Your task to perform on an android device: turn off data saver in the chrome app Image 0: 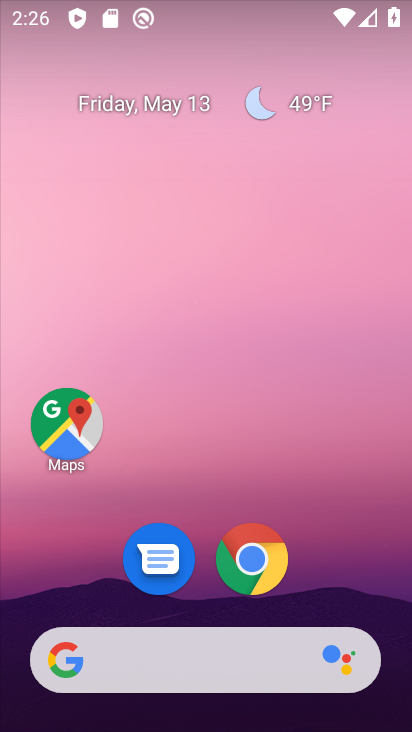
Step 0: click (255, 554)
Your task to perform on an android device: turn off data saver in the chrome app Image 1: 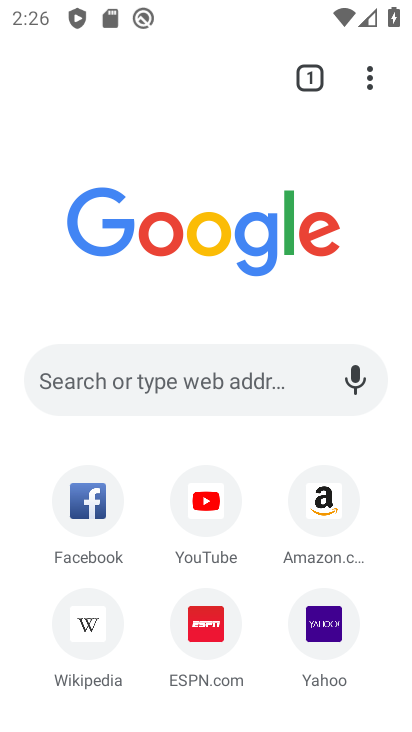
Step 1: click (366, 83)
Your task to perform on an android device: turn off data saver in the chrome app Image 2: 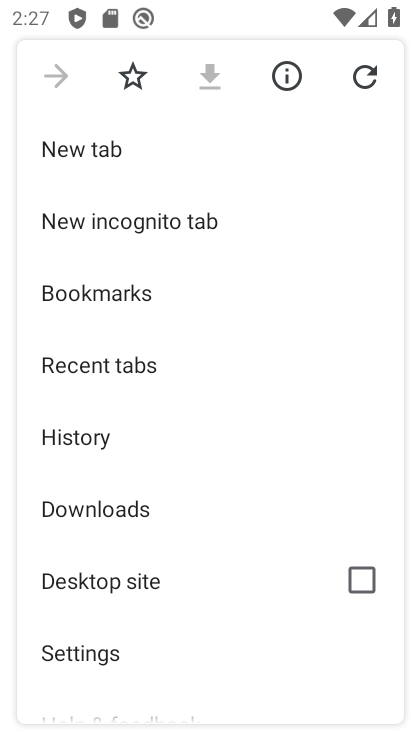
Step 2: click (69, 649)
Your task to perform on an android device: turn off data saver in the chrome app Image 3: 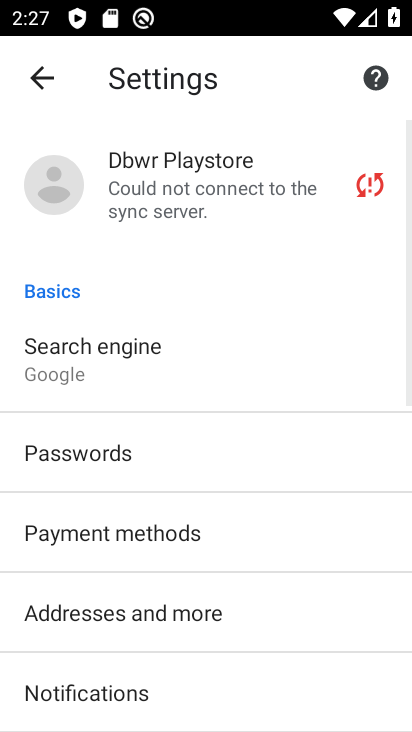
Step 3: drag from (297, 630) to (215, 186)
Your task to perform on an android device: turn off data saver in the chrome app Image 4: 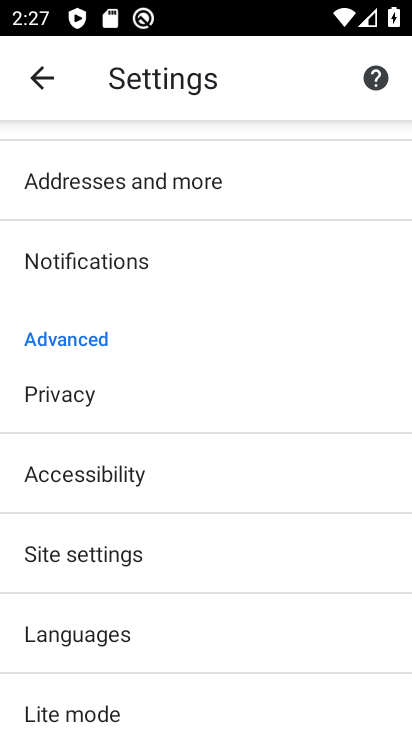
Step 4: drag from (213, 653) to (276, 297)
Your task to perform on an android device: turn off data saver in the chrome app Image 5: 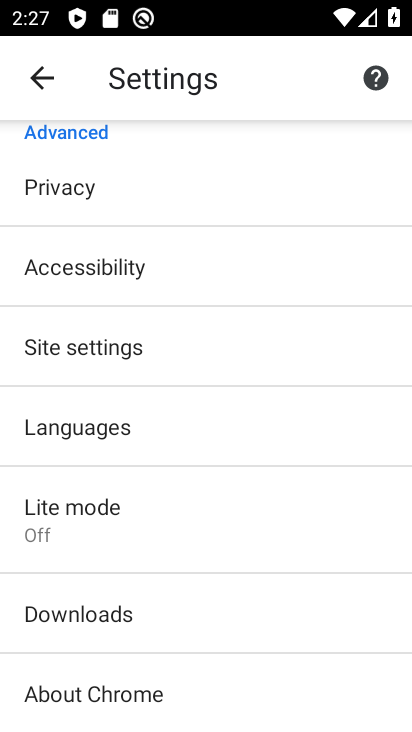
Step 5: click (58, 511)
Your task to perform on an android device: turn off data saver in the chrome app Image 6: 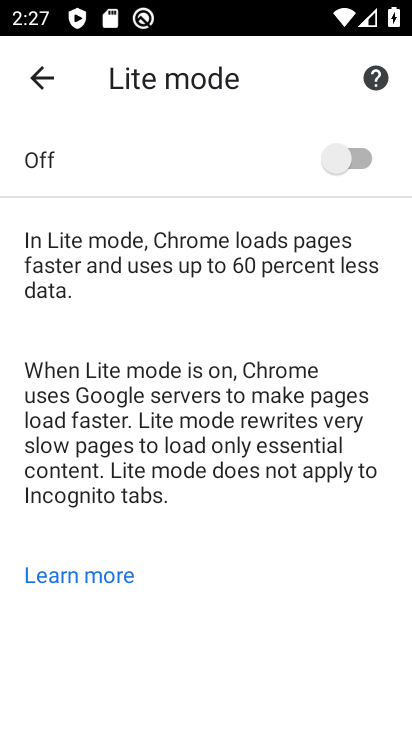
Step 6: task complete